Your task to perform on an android device: Show me popular games on the Play Store Image 0: 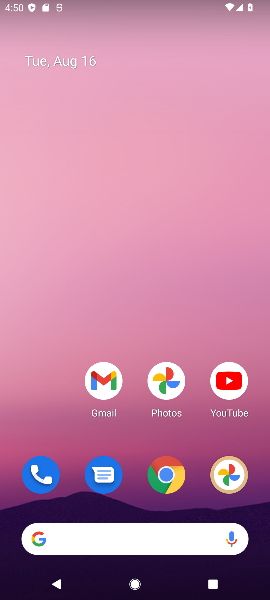
Step 0: drag from (125, 472) to (79, 22)
Your task to perform on an android device: Show me popular games on the Play Store Image 1: 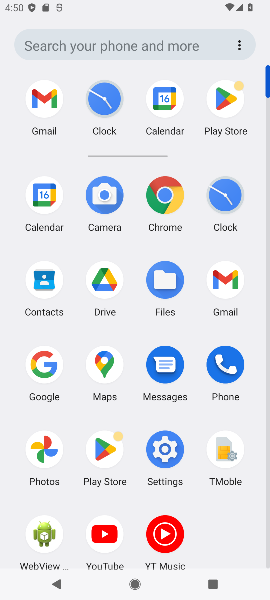
Step 1: click (119, 445)
Your task to perform on an android device: Show me popular games on the Play Store Image 2: 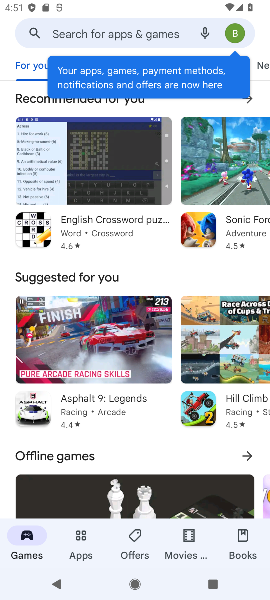
Step 2: task complete